Your task to perform on an android device: Do I have any events today? Image 0: 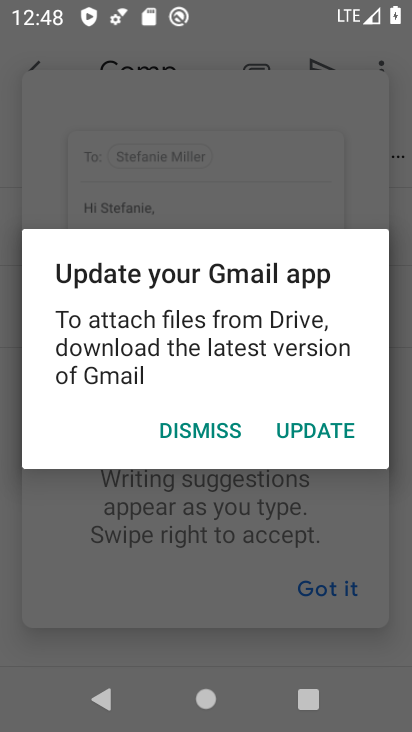
Step 0: press home button
Your task to perform on an android device: Do I have any events today? Image 1: 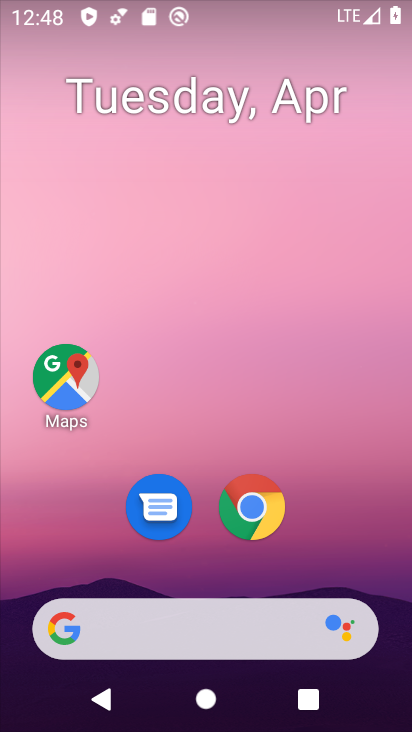
Step 1: drag from (222, 536) to (260, 108)
Your task to perform on an android device: Do I have any events today? Image 2: 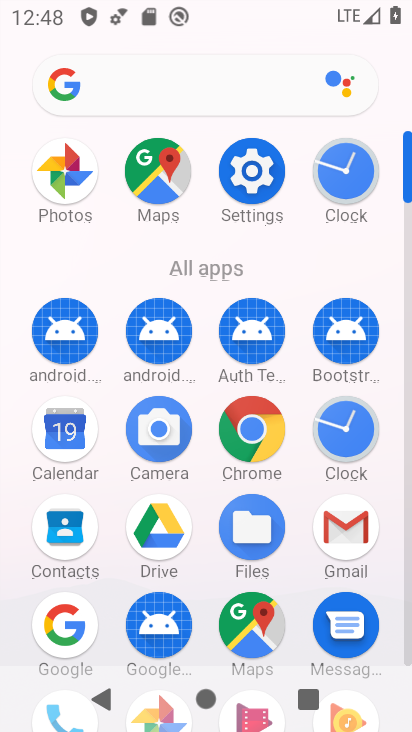
Step 2: click (77, 438)
Your task to perform on an android device: Do I have any events today? Image 3: 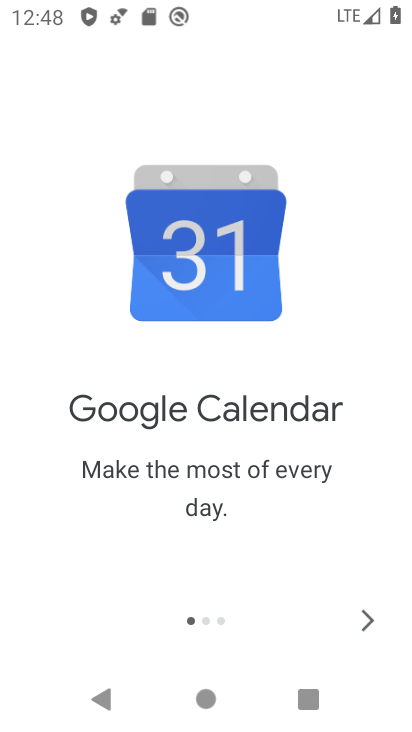
Step 3: click (364, 605)
Your task to perform on an android device: Do I have any events today? Image 4: 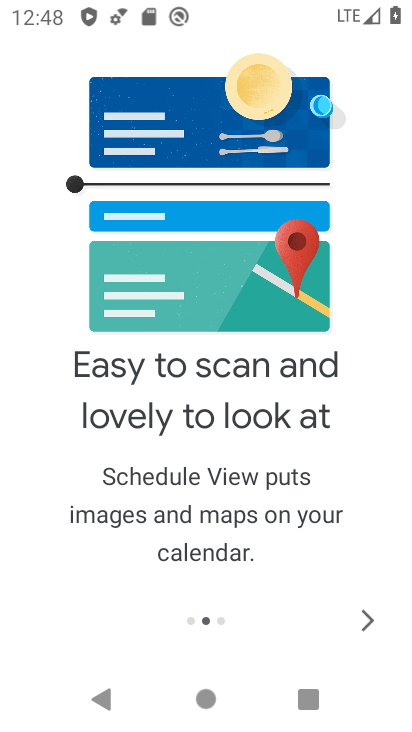
Step 4: click (375, 619)
Your task to perform on an android device: Do I have any events today? Image 5: 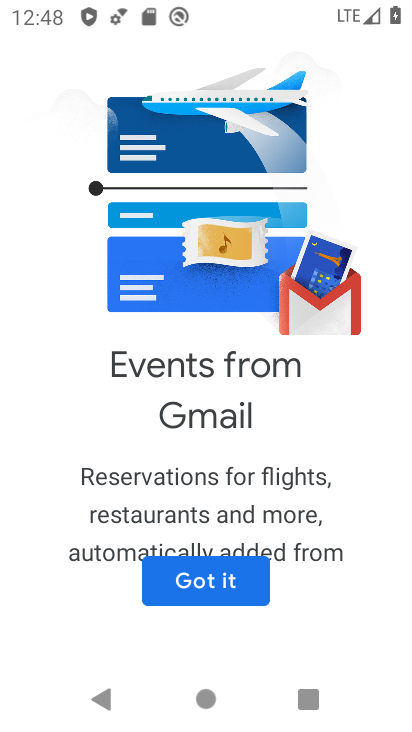
Step 5: click (245, 585)
Your task to perform on an android device: Do I have any events today? Image 6: 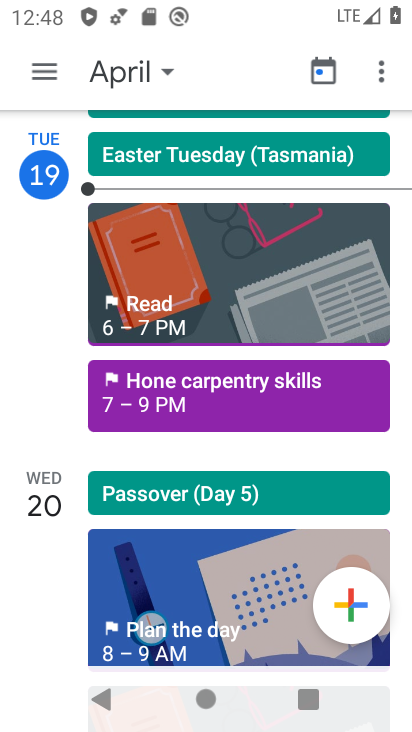
Step 6: click (133, 61)
Your task to perform on an android device: Do I have any events today? Image 7: 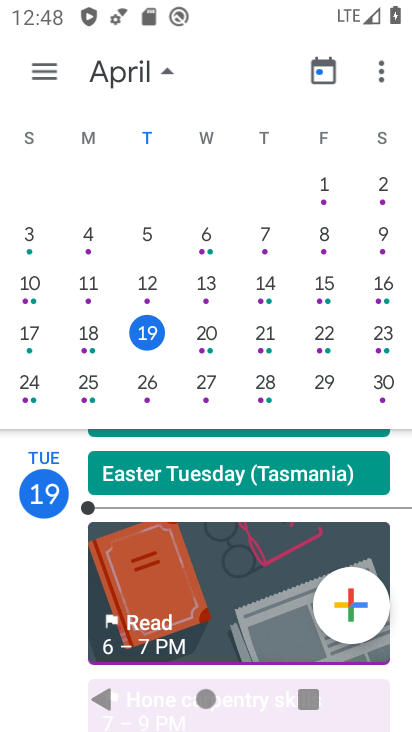
Step 7: click (142, 334)
Your task to perform on an android device: Do I have any events today? Image 8: 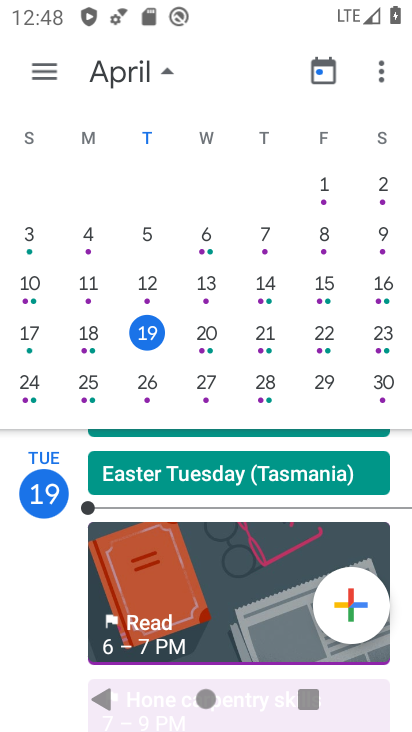
Step 8: click (146, 323)
Your task to perform on an android device: Do I have any events today? Image 9: 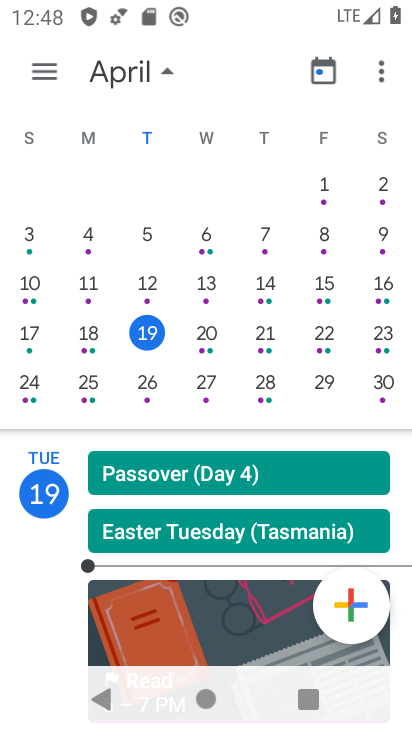
Step 9: task complete